Your task to perform on an android device: Do I have any events this weekend? Image 0: 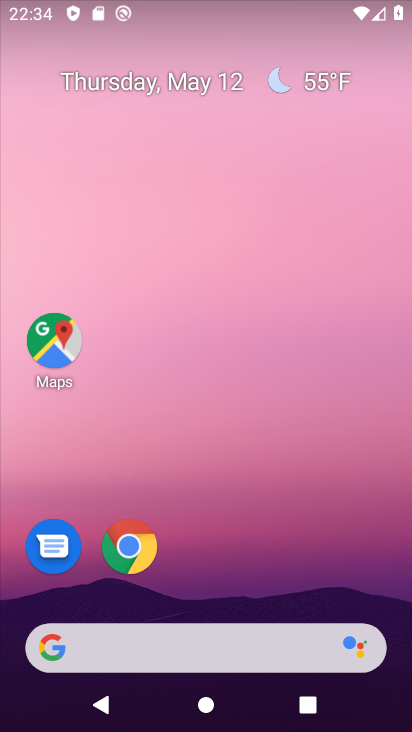
Step 0: drag from (156, 365) to (166, 189)
Your task to perform on an android device: Do I have any events this weekend? Image 1: 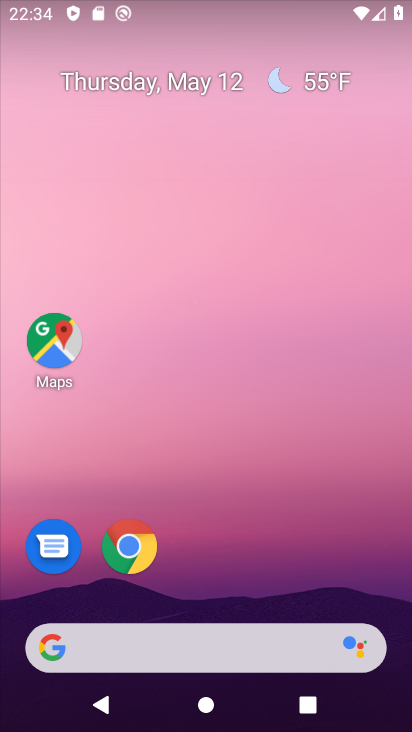
Step 1: drag from (147, 547) to (207, 105)
Your task to perform on an android device: Do I have any events this weekend? Image 2: 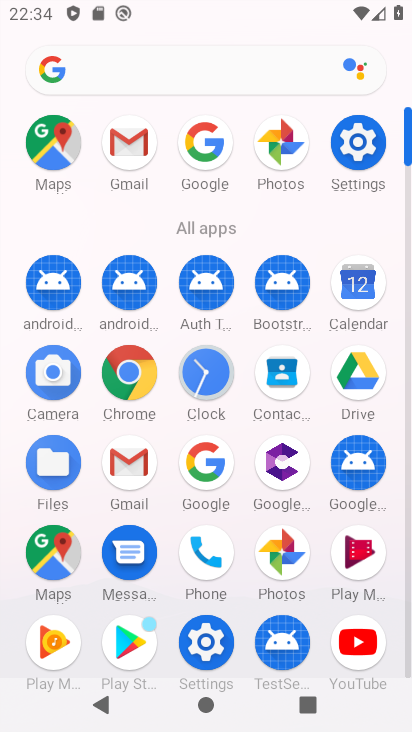
Step 2: click (353, 295)
Your task to perform on an android device: Do I have any events this weekend? Image 3: 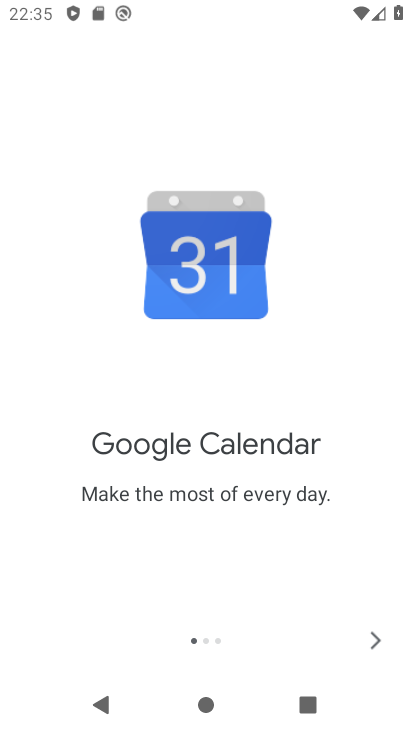
Step 3: click (366, 636)
Your task to perform on an android device: Do I have any events this weekend? Image 4: 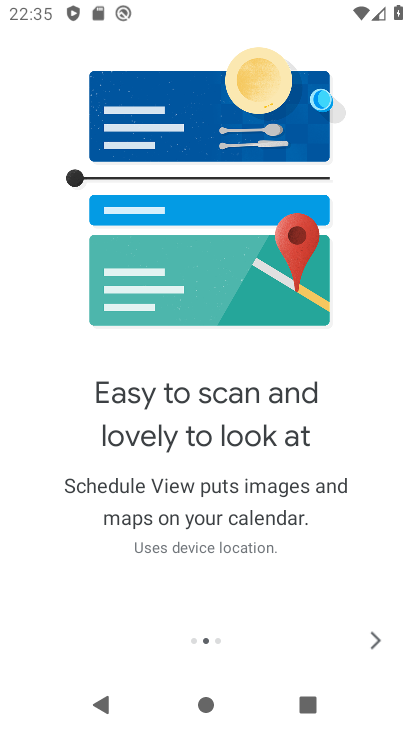
Step 4: click (371, 638)
Your task to perform on an android device: Do I have any events this weekend? Image 5: 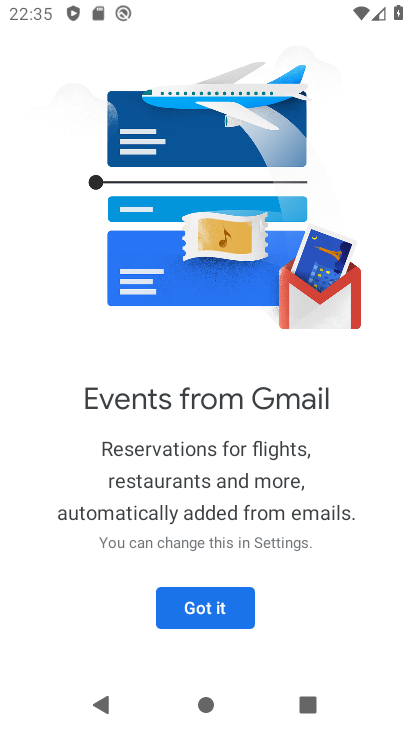
Step 5: click (213, 598)
Your task to perform on an android device: Do I have any events this weekend? Image 6: 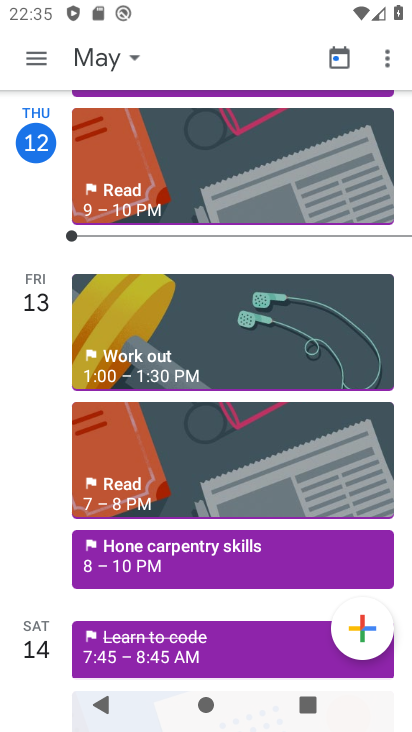
Step 6: click (91, 58)
Your task to perform on an android device: Do I have any events this weekend? Image 7: 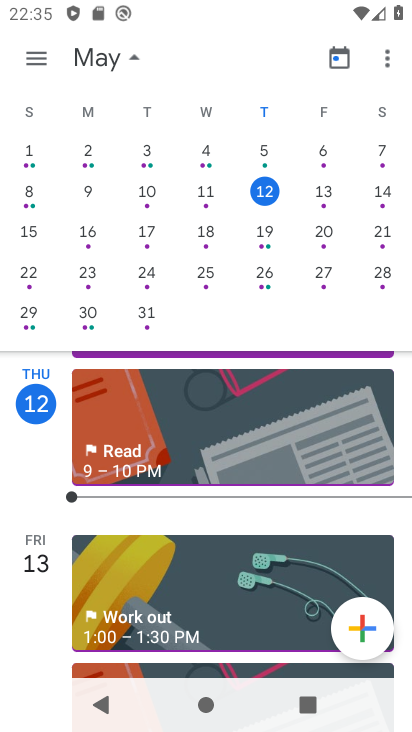
Step 7: click (381, 189)
Your task to perform on an android device: Do I have any events this weekend? Image 8: 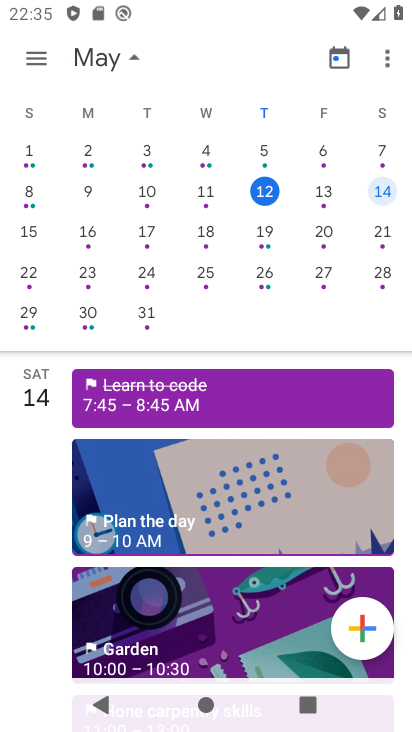
Step 8: click (30, 227)
Your task to perform on an android device: Do I have any events this weekend? Image 9: 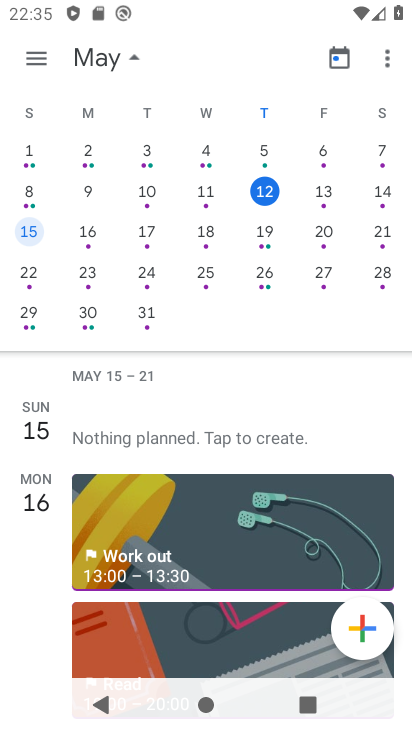
Step 9: click (376, 190)
Your task to perform on an android device: Do I have any events this weekend? Image 10: 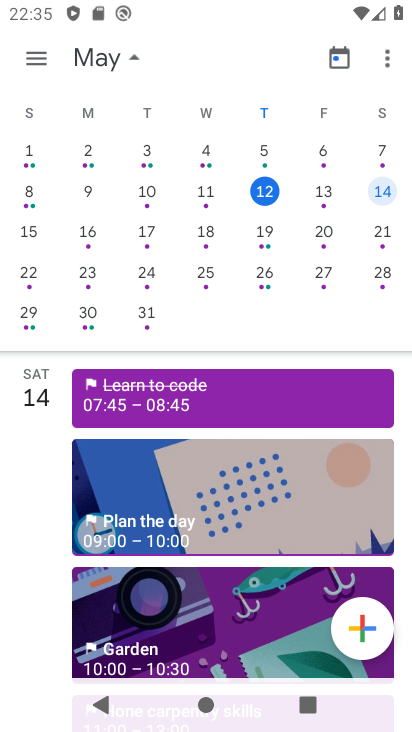
Step 10: task complete